Your task to perform on an android device: install app "Messenger Lite" Image 0: 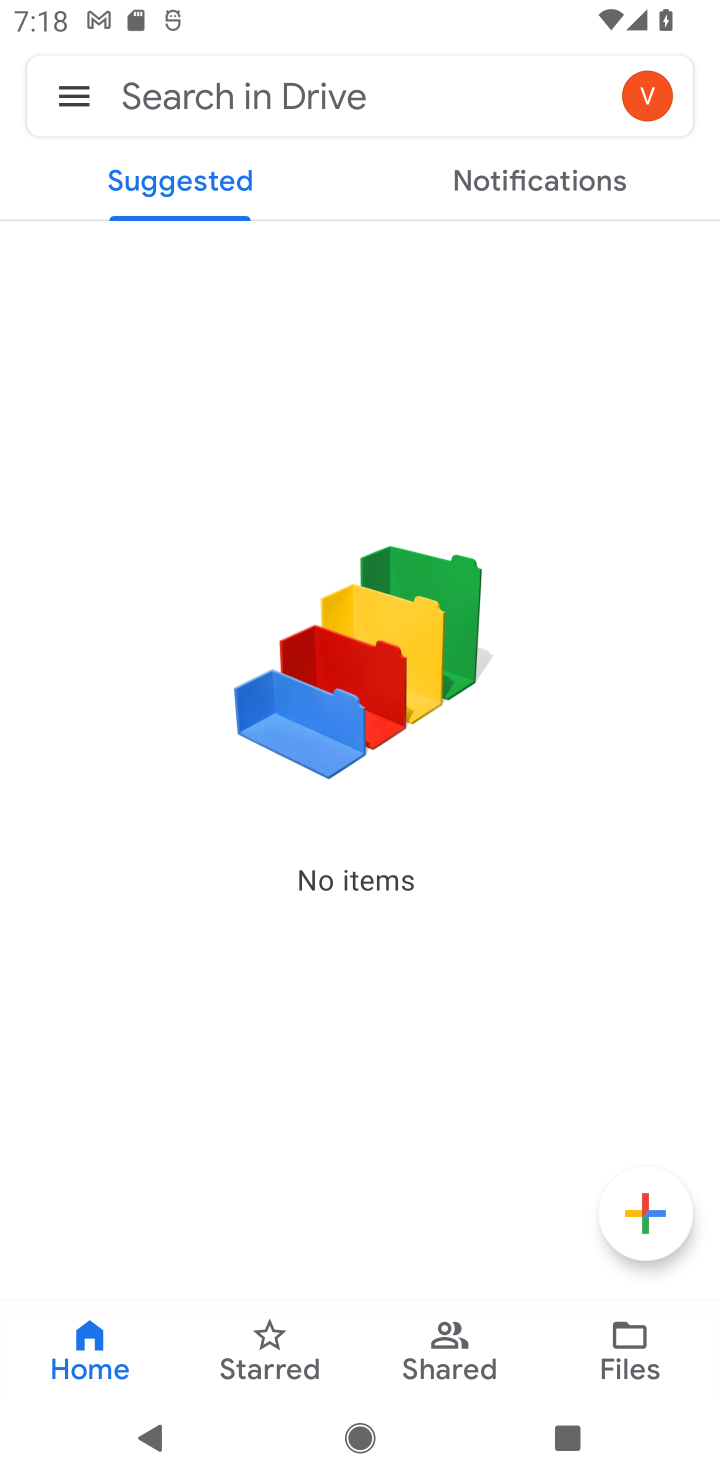
Step 0: press home button
Your task to perform on an android device: install app "Messenger Lite" Image 1: 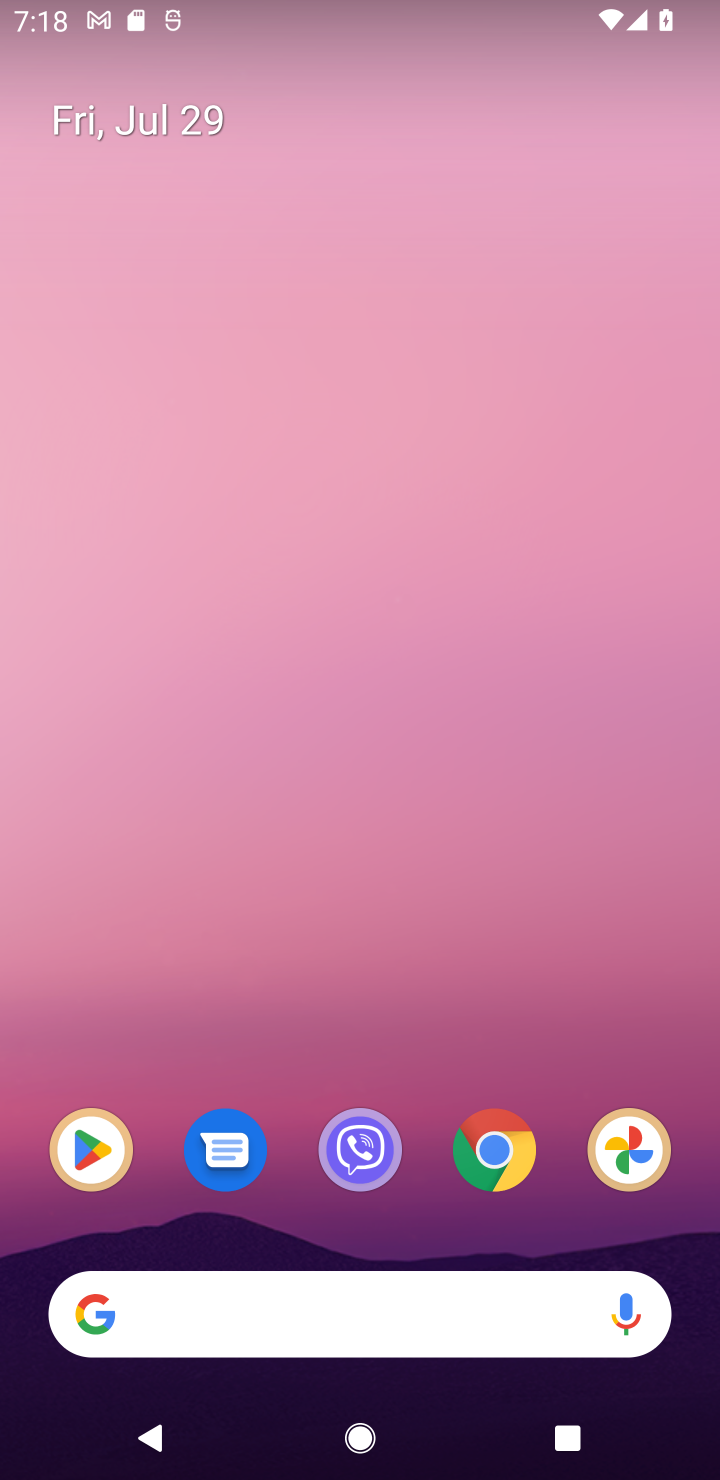
Step 1: click (80, 1165)
Your task to perform on an android device: install app "Messenger Lite" Image 2: 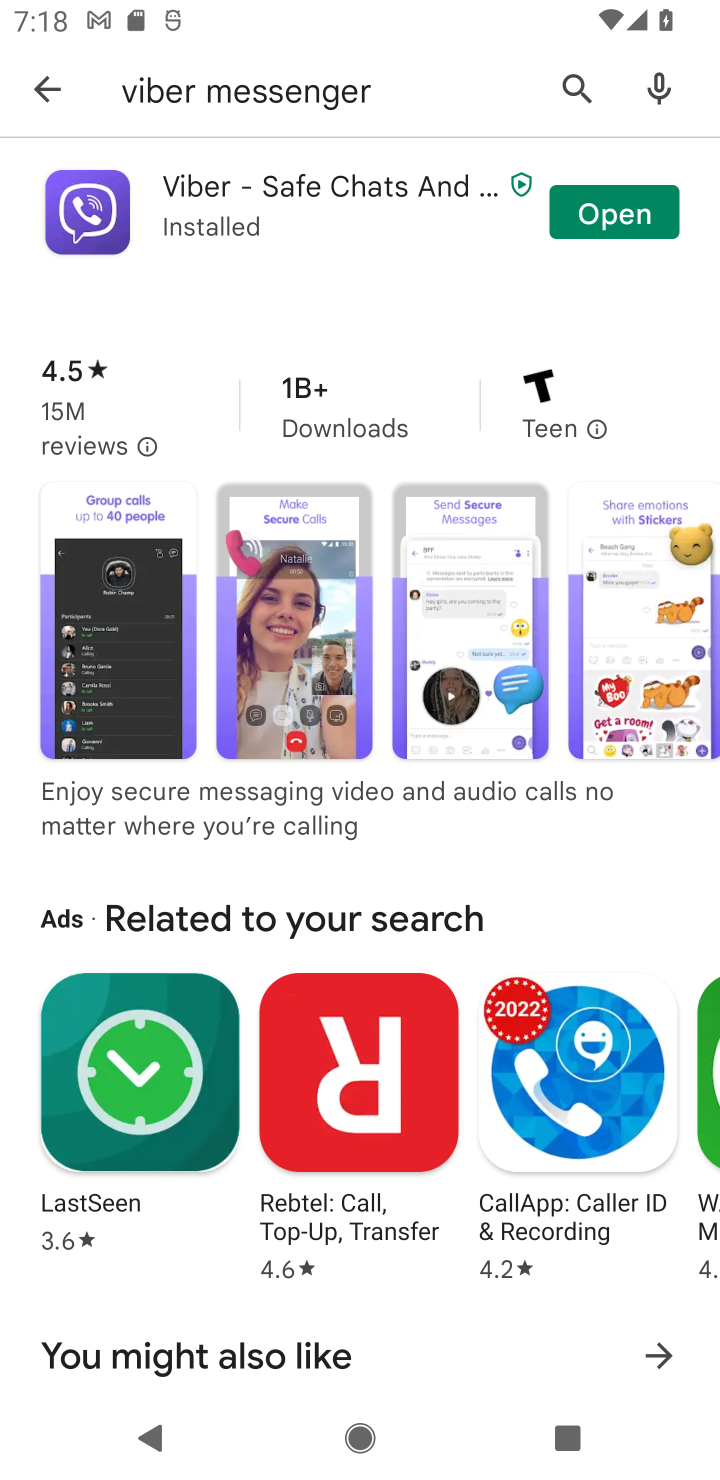
Step 2: click (56, 88)
Your task to perform on an android device: install app "Messenger Lite" Image 3: 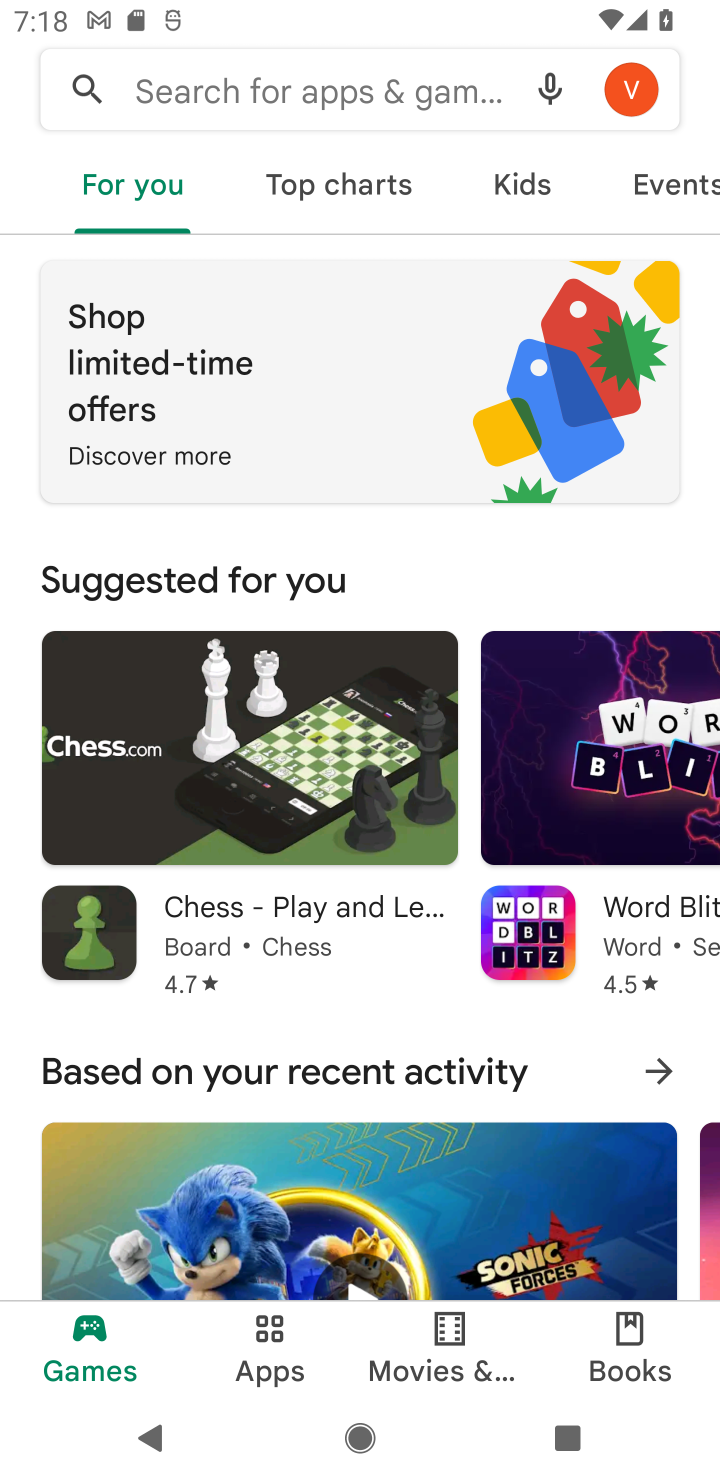
Step 3: click (323, 97)
Your task to perform on an android device: install app "Messenger Lite" Image 4: 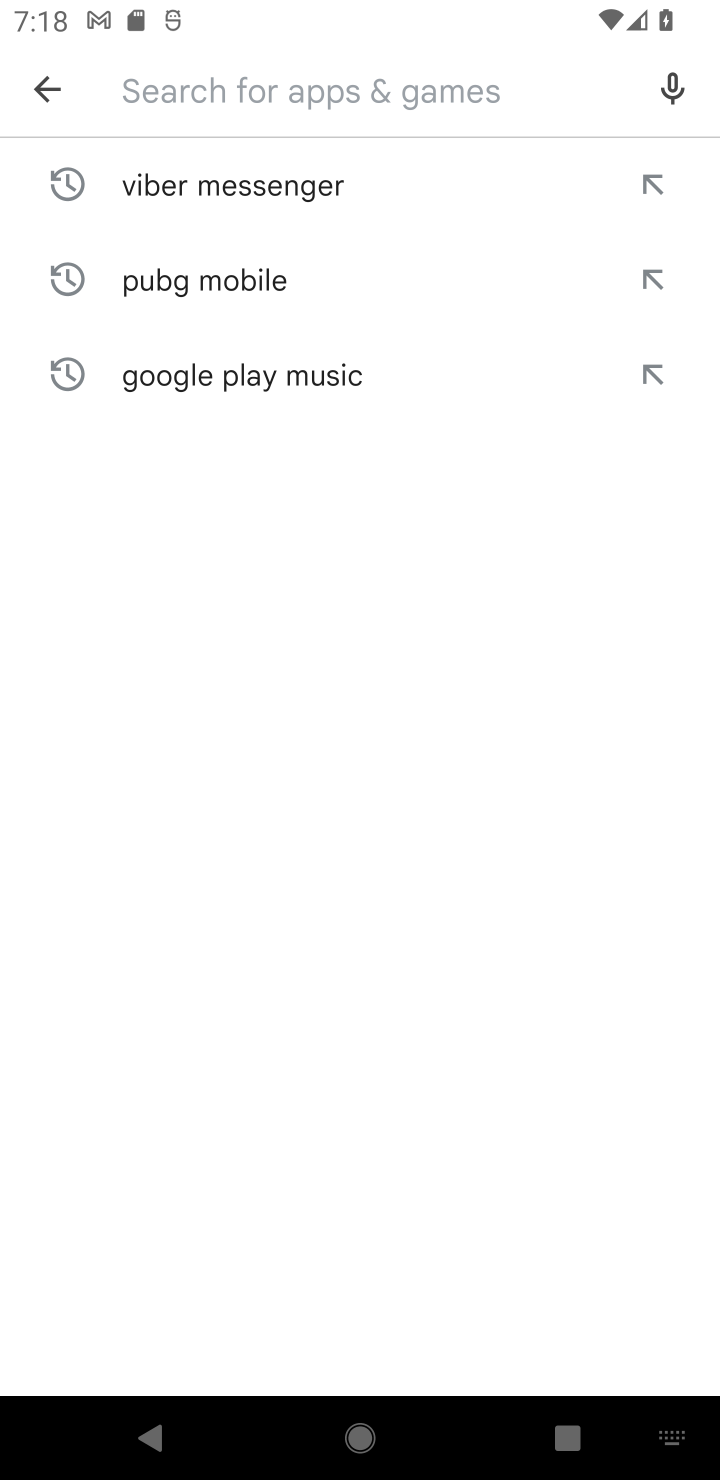
Step 4: type "Messenger Lite"
Your task to perform on an android device: install app "Messenger Lite" Image 5: 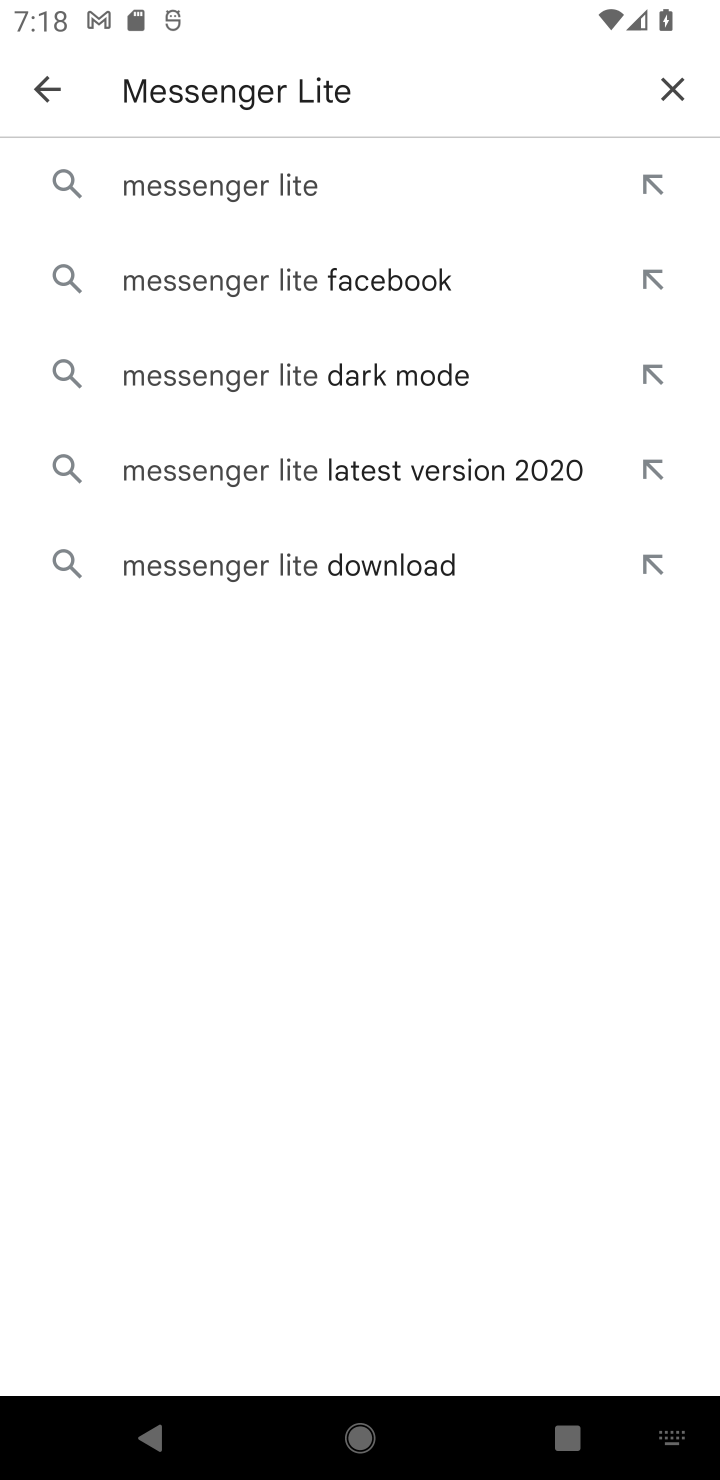
Step 5: click (263, 199)
Your task to perform on an android device: install app "Messenger Lite" Image 6: 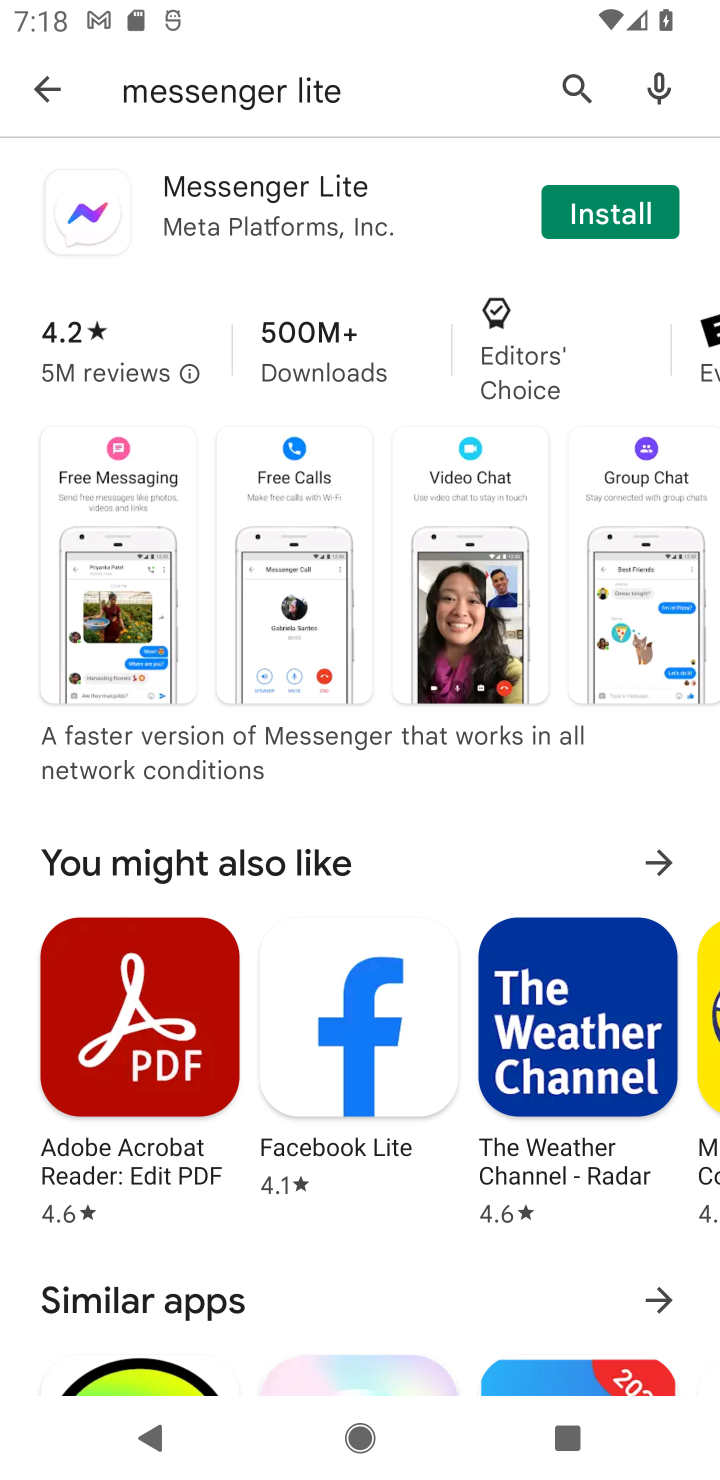
Step 6: click (601, 222)
Your task to perform on an android device: install app "Messenger Lite" Image 7: 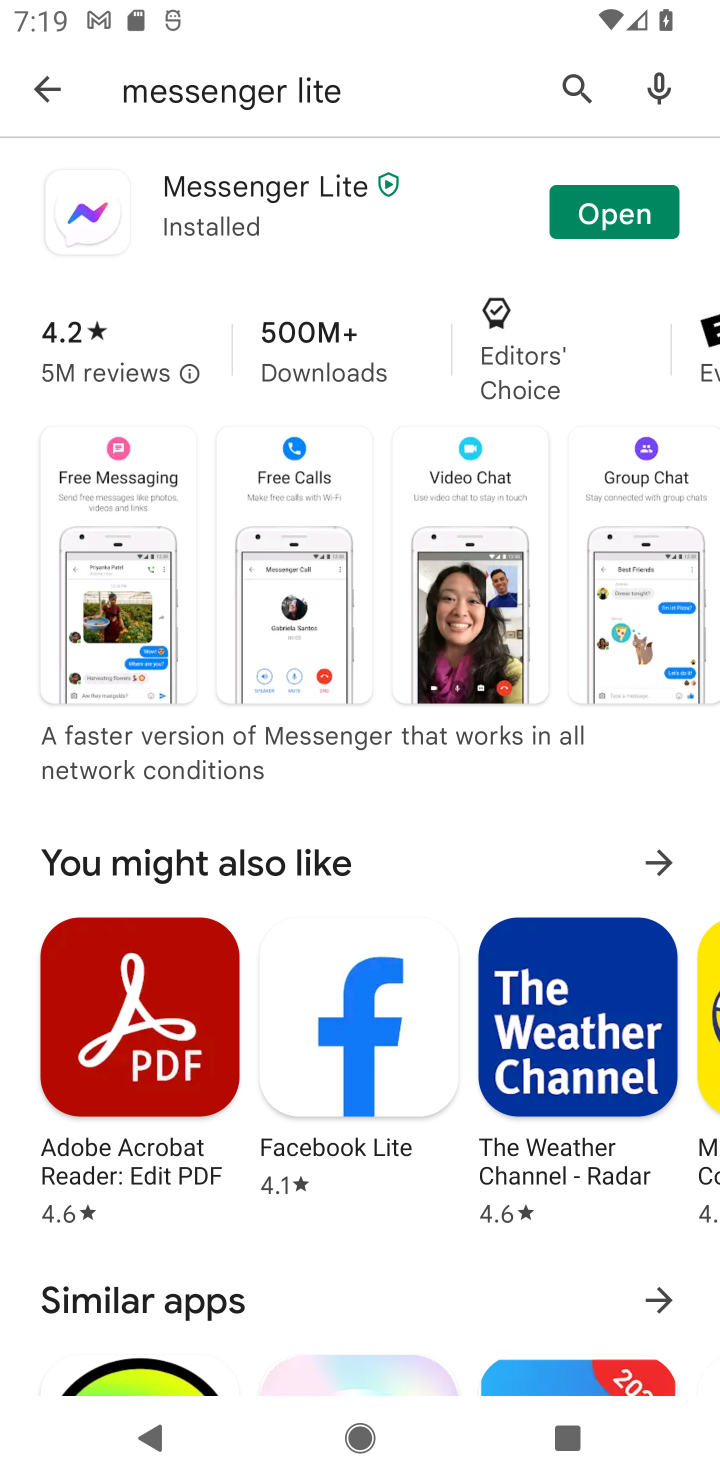
Step 7: click (601, 222)
Your task to perform on an android device: install app "Messenger Lite" Image 8: 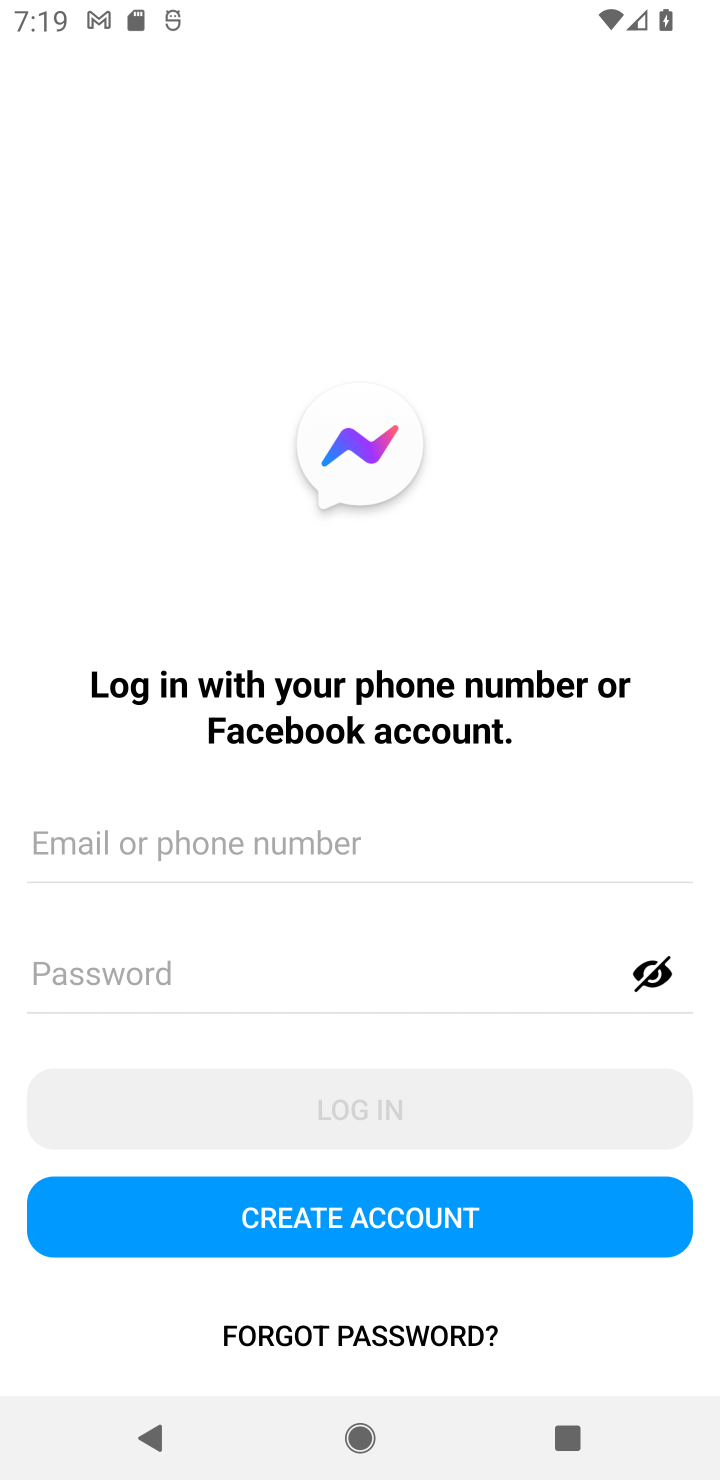
Step 8: task complete